Your task to perform on an android device: What's the weather today? Image 0: 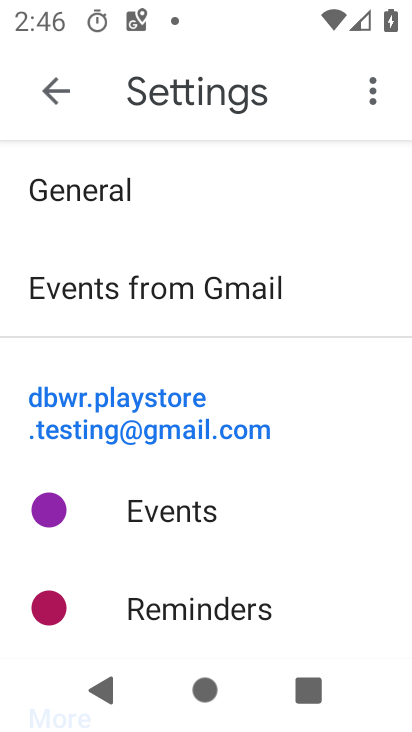
Step 0: press home button
Your task to perform on an android device: What's the weather today? Image 1: 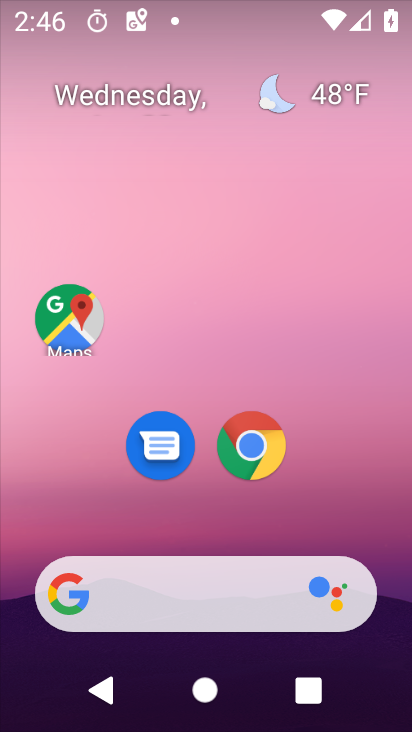
Step 1: click (330, 97)
Your task to perform on an android device: What's the weather today? Image 2: 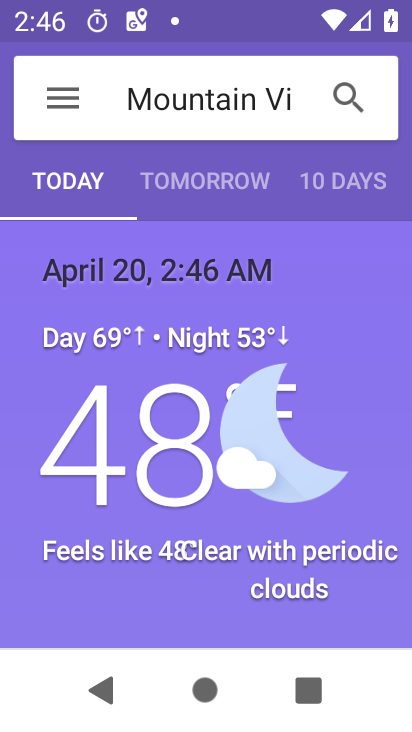
Step 2: task complete